Your task to perform on an android device: Search for seafood restaurants on Google Maps Image 0: 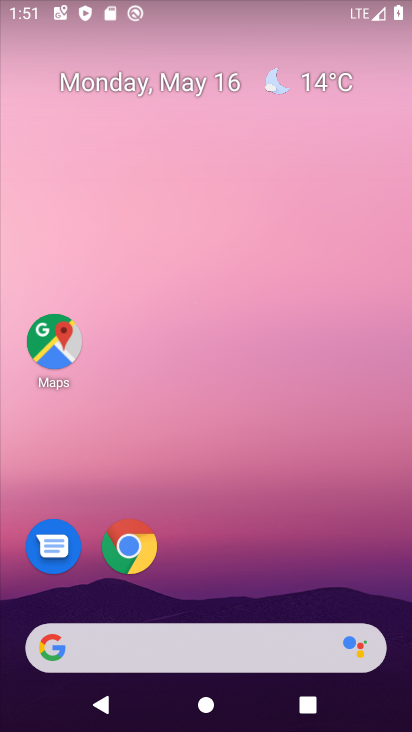
Step 0: drag from (284, 676) to (290, 298)
Your task to perform on an android device: Search for seafood restaurants on Google Maps Image 1: 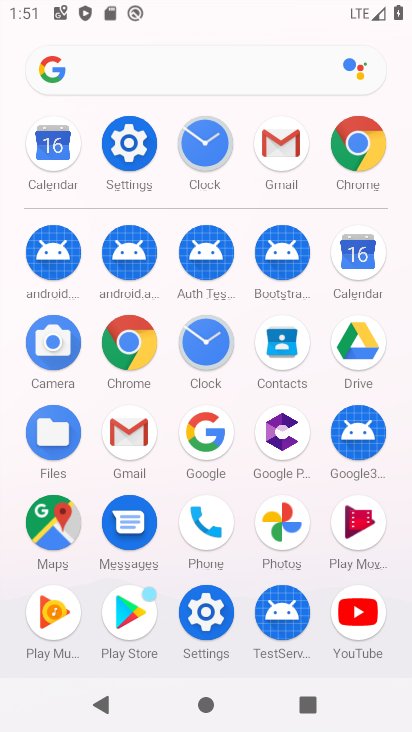
Step 1: click (60, 520)
Your task to perform on an android device: Search for seafood restaurants on Google Maps Image 2: 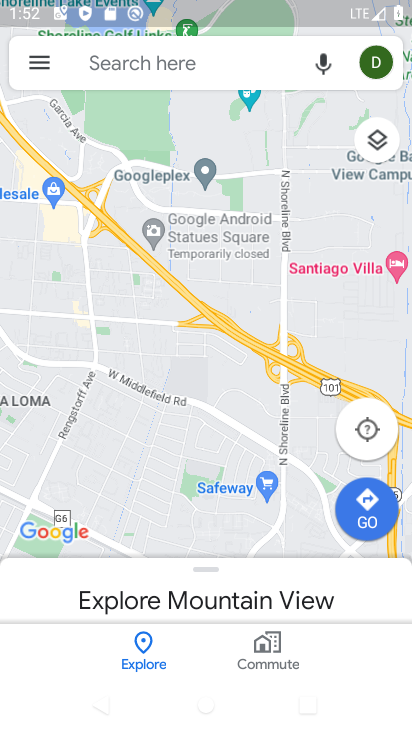
Step 2: click (173, 54)
Your task to perform on an android device: Search for seafood restaurants on Google Maps Image 3: 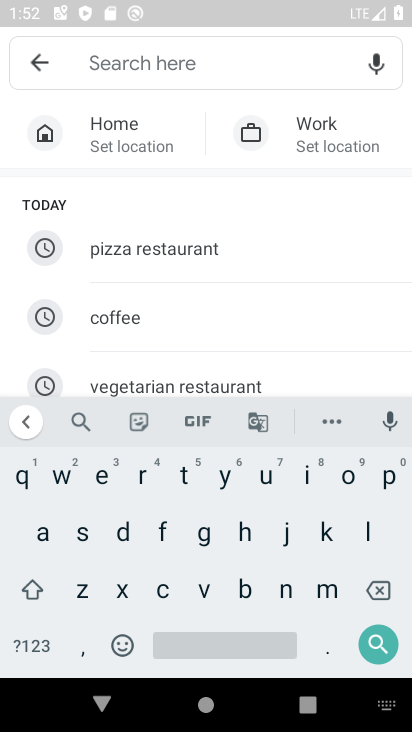
Step 3: click (75, 532)
Your task to perform on an android device: Search for seafood restaurants on Google Maps Image 4: 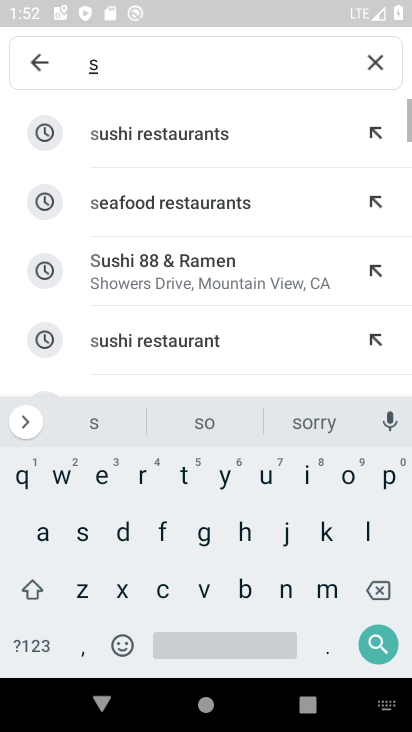
Step 4: click (150, 204)
Your task to perform on an android device: Search for seafood restaurants on Google Maps Image 5: 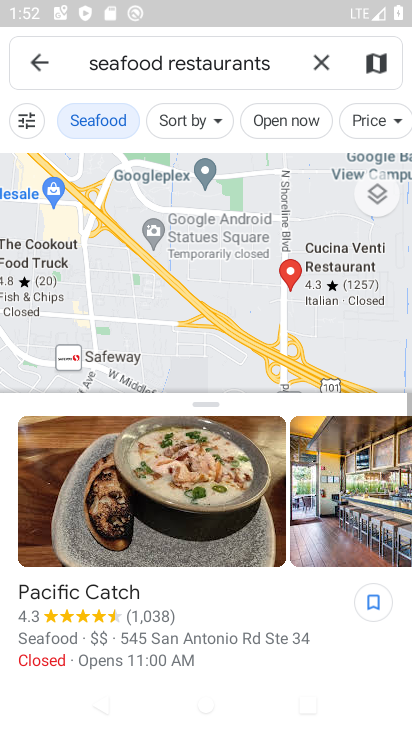
Step 5: task complete